Your task to perform on an android device: delete a single message in the gmail app Image 0: 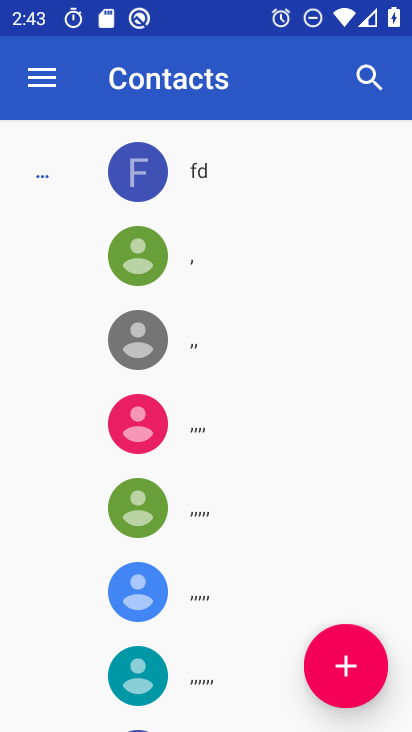
Step 0: press home button
Your task to perform on an android device: delete a single message in the gmail app Image 1: 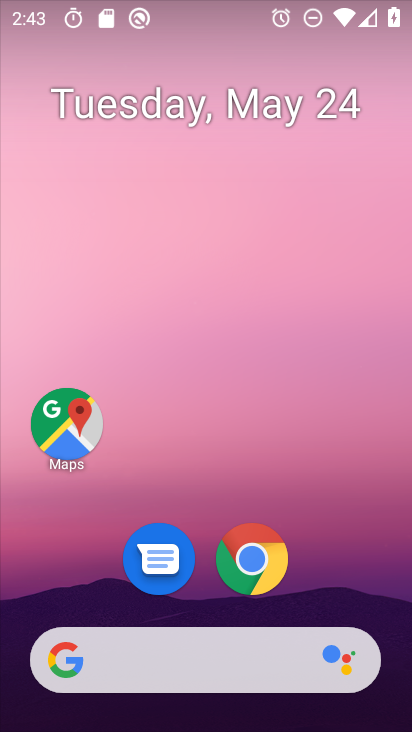
Step 1: drag from (392, 719) to (394, 190)
Your task to perform on an android device: delete a single message in the gmail app Image 2: 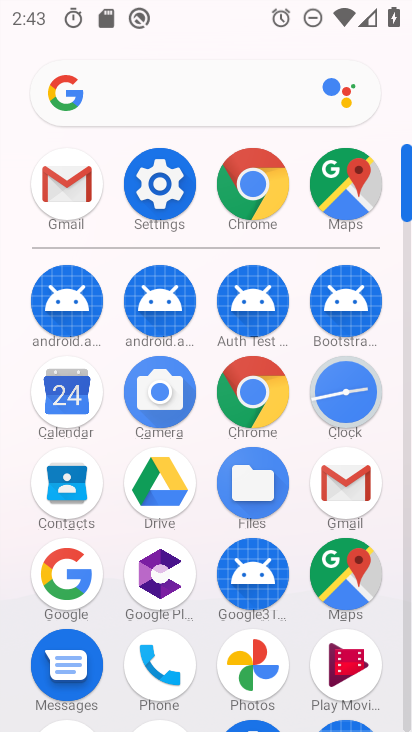
Step 2: click (71, 179)
Your task to perform on an android device: delete a single message in the gmail app Image 3: 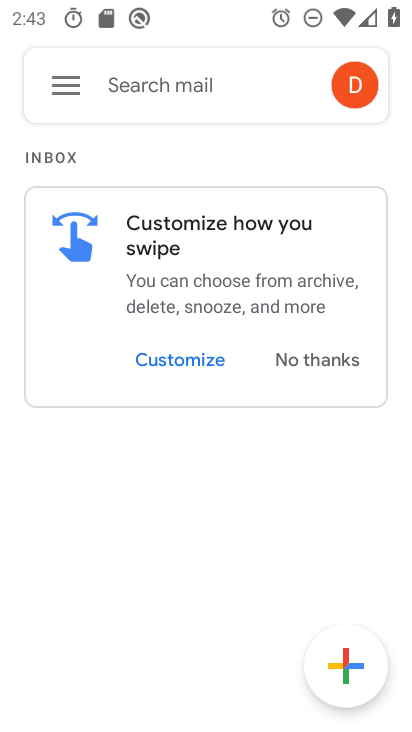
Step 3: click (58, 93)
Your task to perform on an android device: delete a single message in the gmail app Image 4: 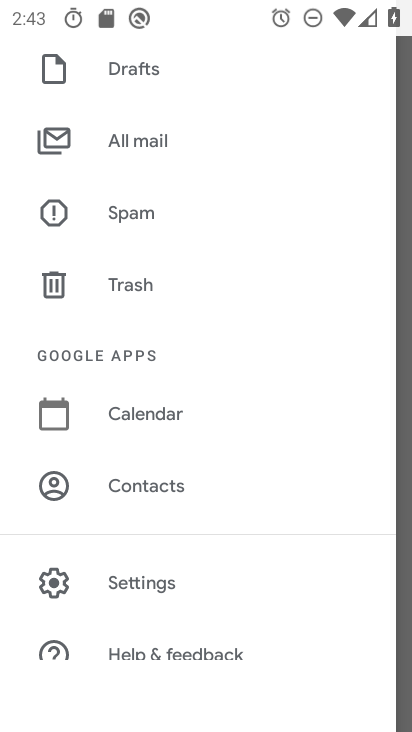
Step 4: drag from (247, 171) to (193, 731)
Your task to perform on an android device: delete a single message in the gmail app Image 5: 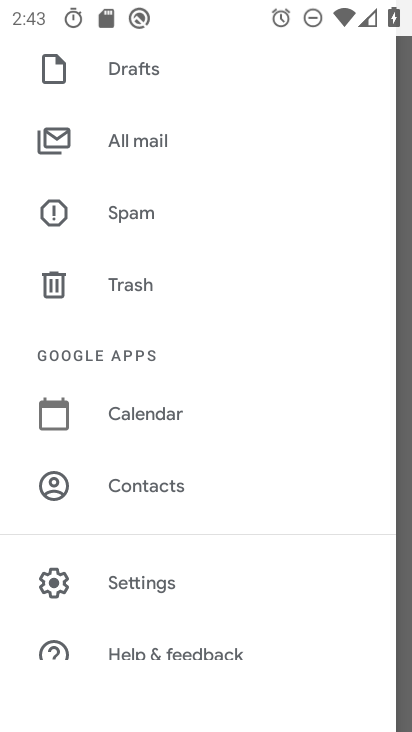
Step 5: drag from (227, 132) to (244, 624)
Your task to perform on an android device: delete a single message in the gmail app Image 6: 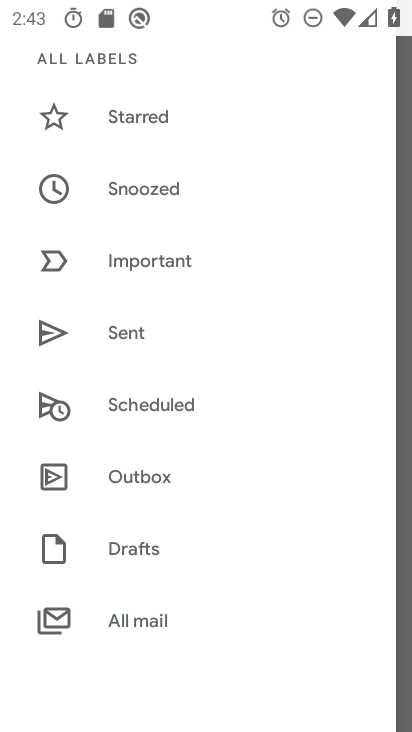
Step 6: drag from (270, 87) to (257, 642)
Your task to perform on an android device: delete a single message in the gmail app Image 7: 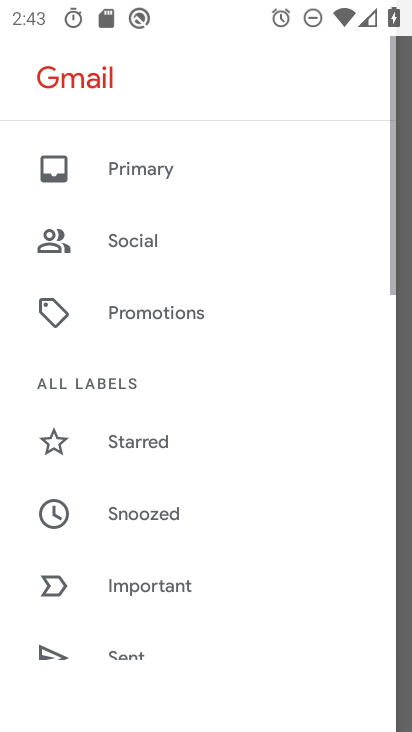
Step 7: click (143, 173)
Your task to perform on an android device: delete a single message in the gmail app Image 8: 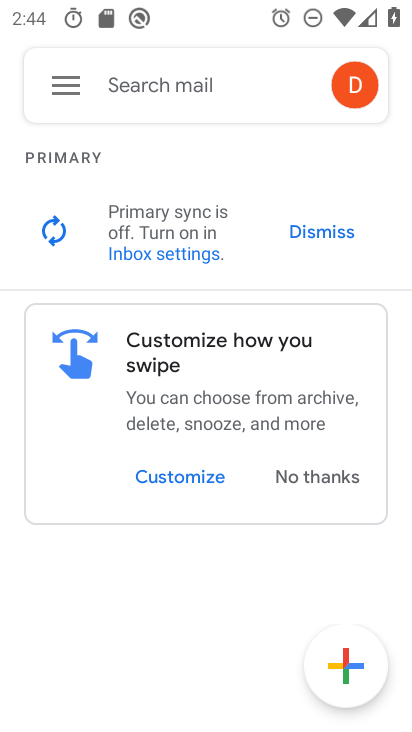
Step 8: task complete